Your task to perform on an android device: change the clock display to digital Image 0: 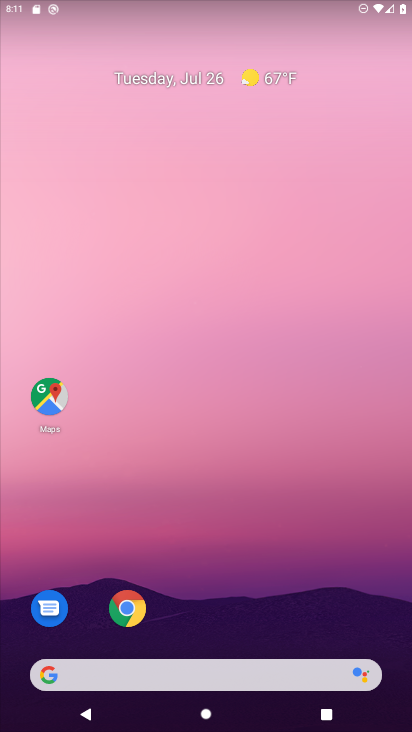
Step 0: drag from (231, 627) to (267, 67)
Your task to perform on an android device: change the clock display to digital Image 1: 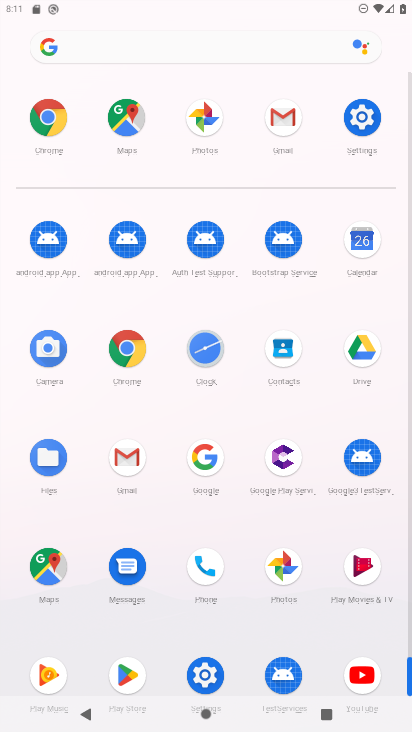
Step 1: click (209, 357)
Your task to perform on an android device: change the clock display to digital Image 2: 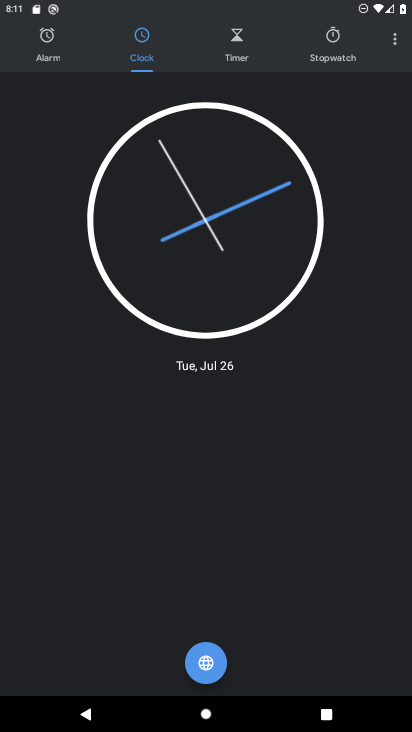
Step 2: click (386, 36)
Your task to perform on an android device: change the clock display to digital Image 3: 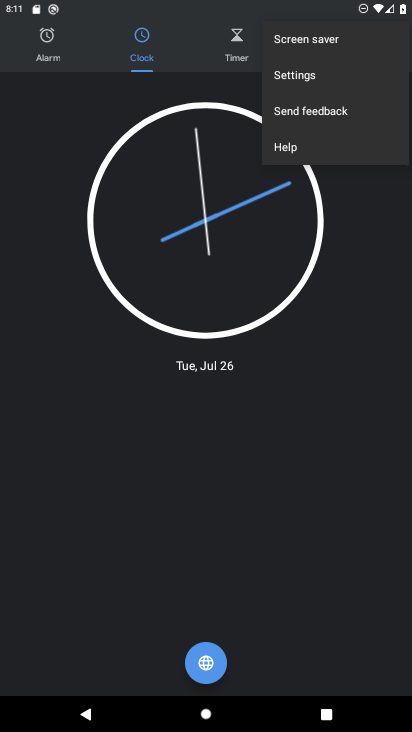
Step 3: click (297, 84)
Your task to perform on an android device: change the clock display to digital Image 4: 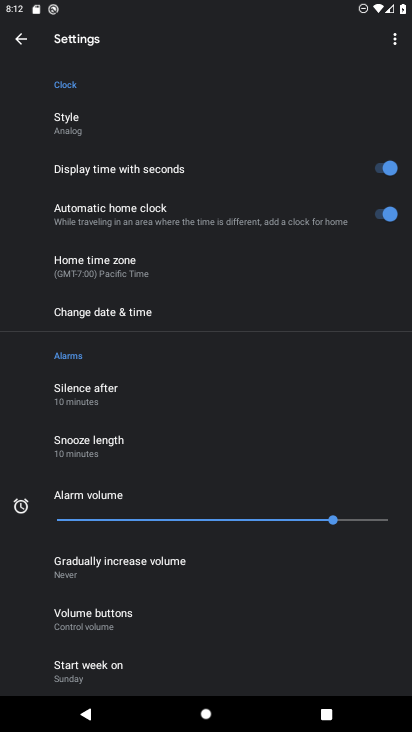
Step 4: click (154, 125)
Your task to perform on an android device: change the clock display to digital Image 5: 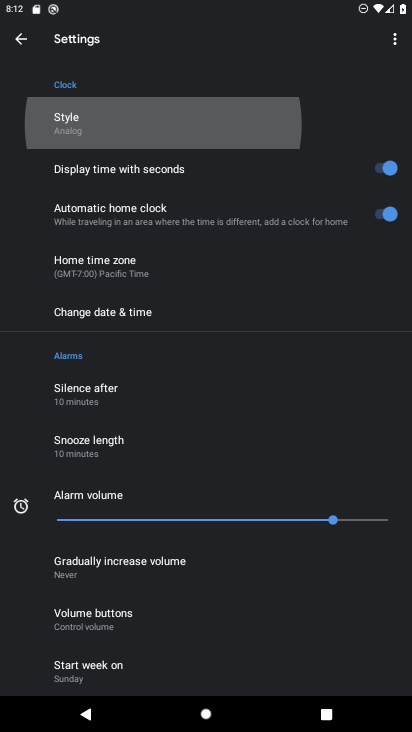
Step 5: click (52, 117)
Your task to perform on an android device: change the clock display to digital Image 6: 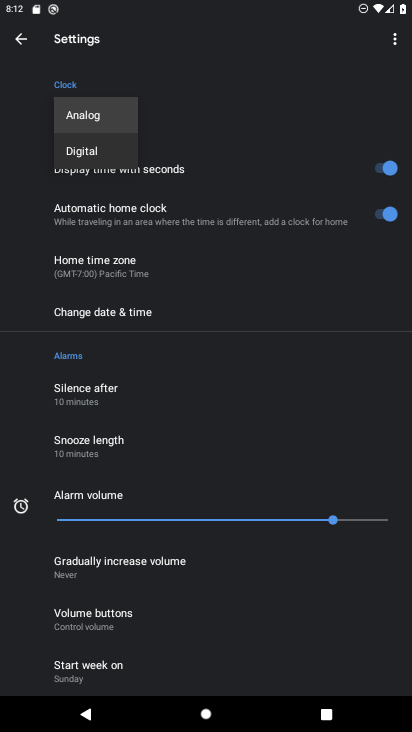
Step 6: click (91, 152)
Your task to perform on an android device: change the clock display to digital Image 7: 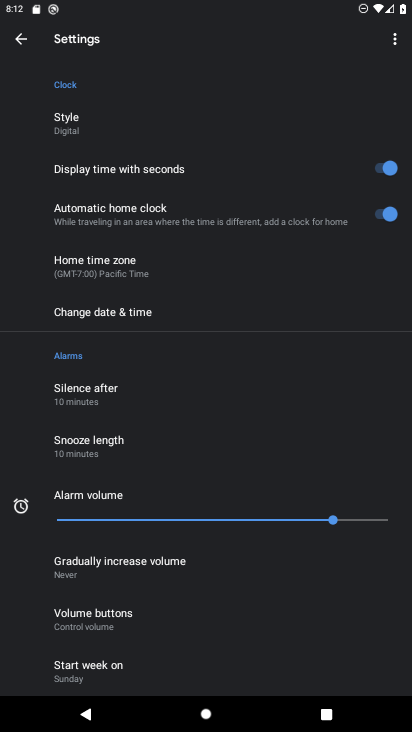
Step 7: task complete